Your task to perform on an android device: What's the weather going to be this weekend? Image 0: 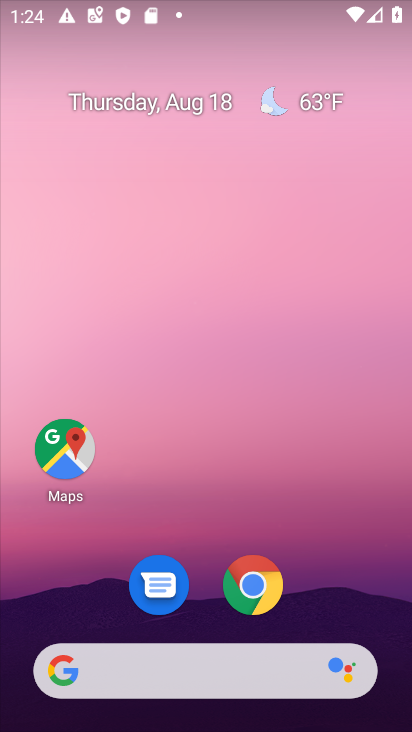
Step 0: click (315, 103)
Your task to perform on an android device: What's the weather going to be this weekend? Image 1: 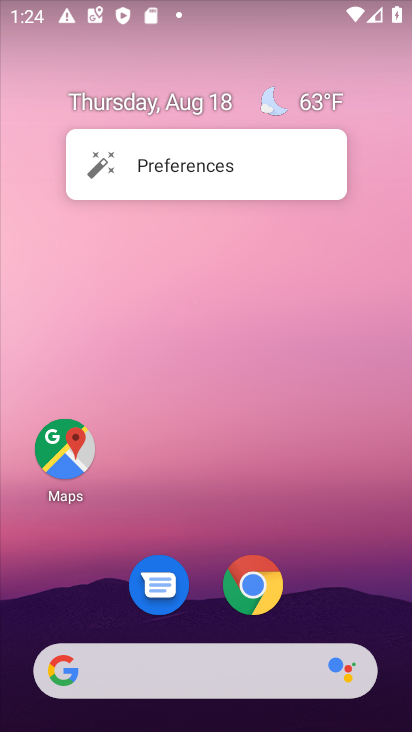
Step 1: click (322, 98)
Your task to perform on an android device: What's the weather going to be this weekend? Image 2: 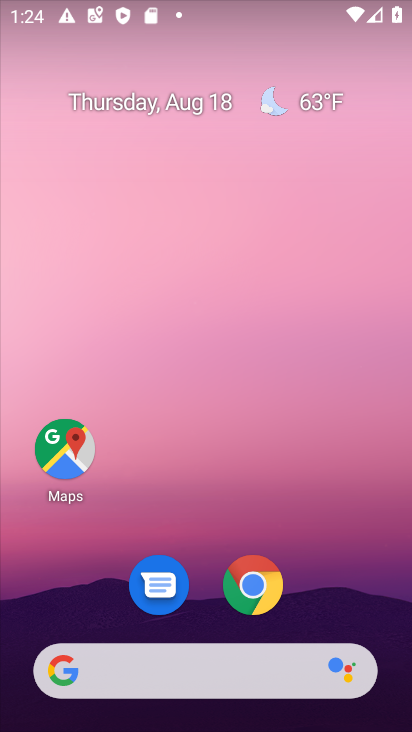
Step 2: click (322, 98)
Your task to perform on an android device: What's the weather going to be this weekend? Image 3: 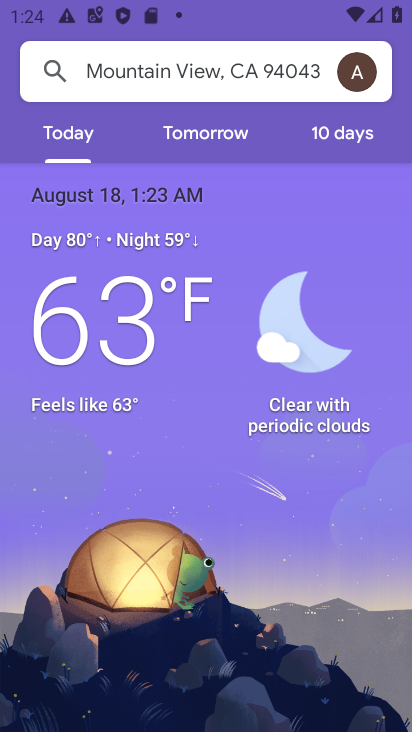
Step 3: click (332, 129)
Your task to perform on an android device: What's the weather going to be this weekend? Image 4: 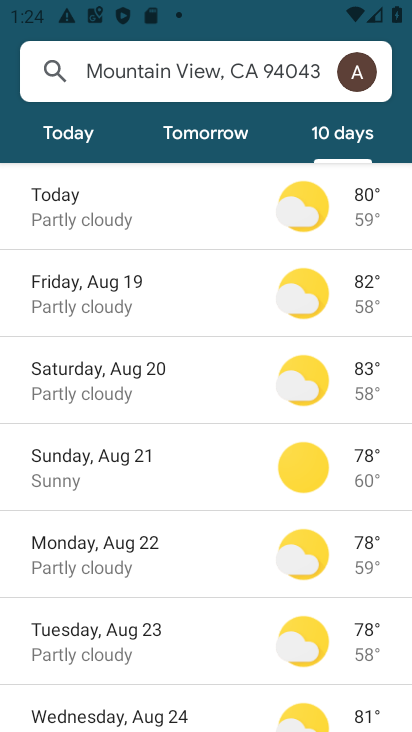
Step 4: click (103, 382)
Your task to perform on an android device: What's the weather going to be this weekend? Image 5: 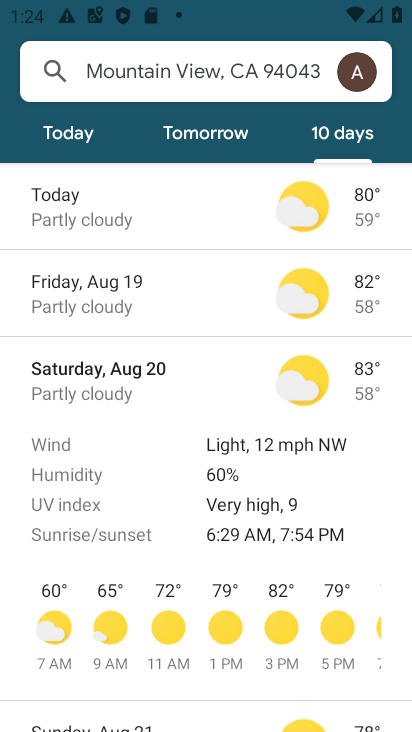
Step 5: task complete